Your task to perform on an android device: turn off airplane mode Image 0: 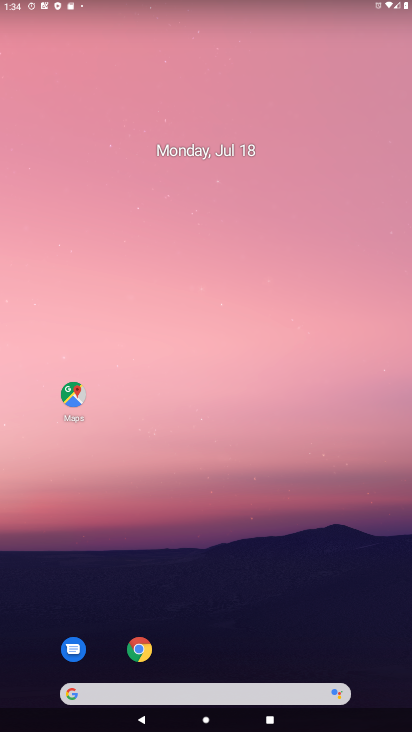
Step 0: drag from (218, 675) to (221, 18)
Your task to perform on an android device: turn off airplane mode Image 1: 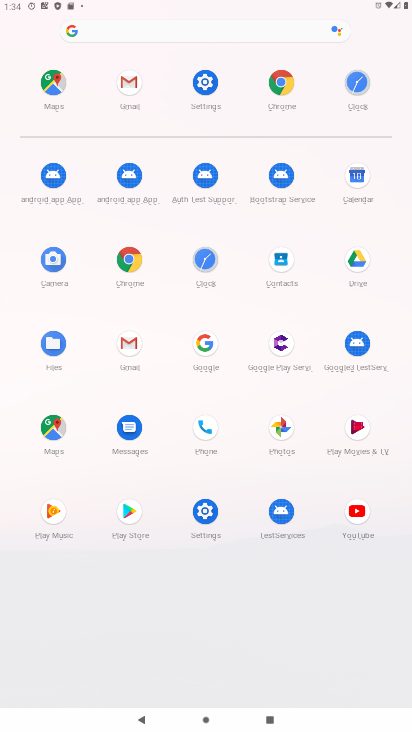
Step 1: task complete